Your task to perform on an android device: Open the calendar and show me this week's events? Image 0: 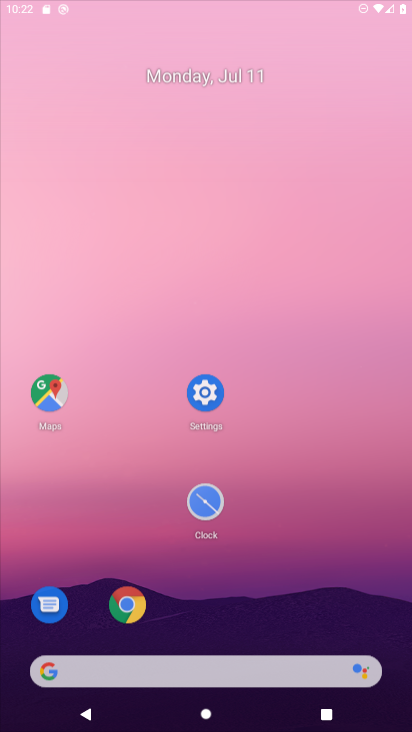
Step 0: press home button
Your task to perform on an android device: Open the calendar and show me this week's events? Image 1: 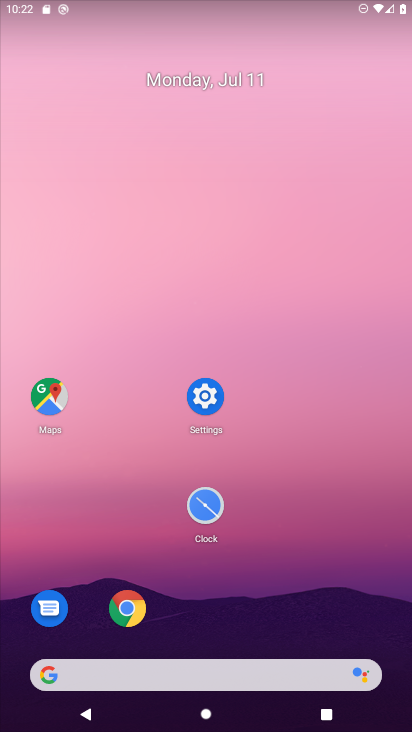
Step 1: drag from (384, 679) to (350, 145)
Your task to perform on an android device: Open the calendar and show me this week's events? Image 2: 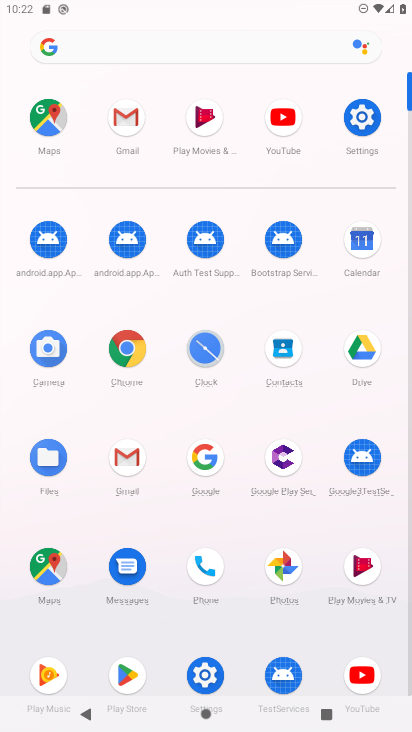
Step 2: click (352, 113)
Your task to perform on an android device: Open the calendar and show me this week's events? Image 3: 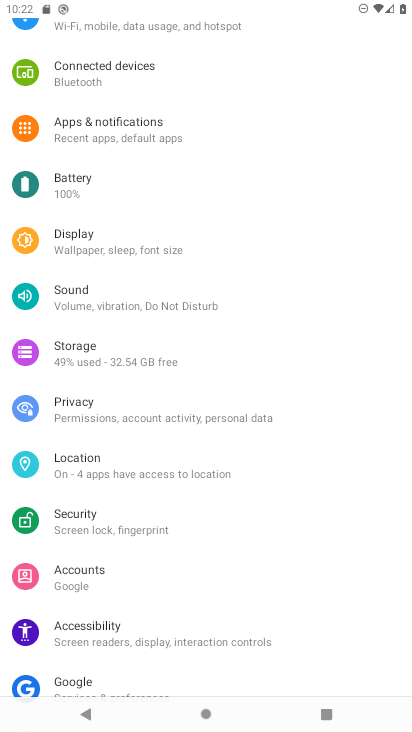
Step 3: press home button
Your task to perform on an android device: Open the calendar and show me this week's events? Image 4: 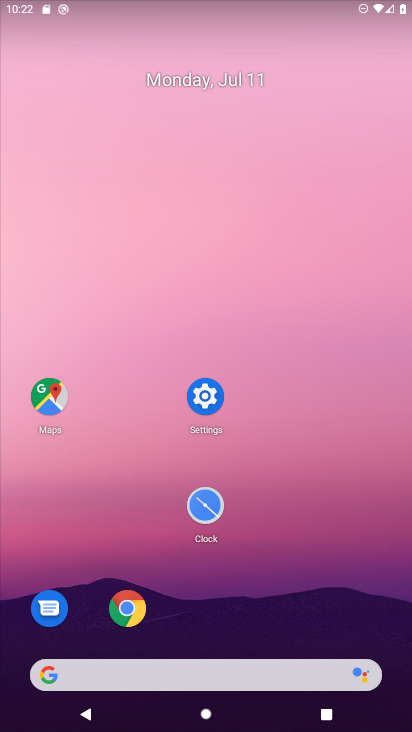
Step 4: drag from (397, 676) to (407, 55)
Your task to perform on an android device: Open the calendar and show me this week's events? Image 5: 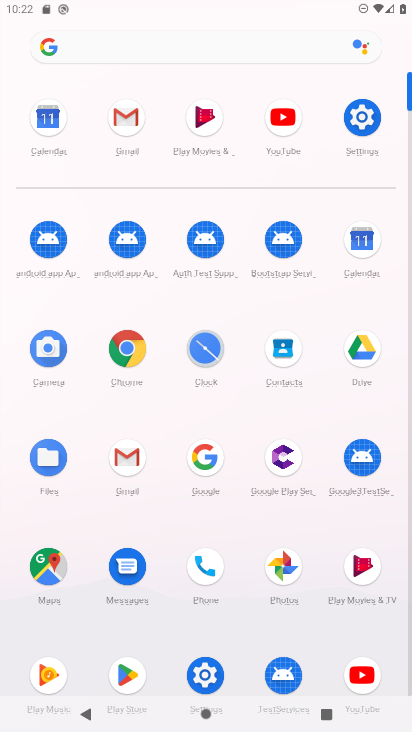
Step 5: click (364, 240)
Your task to perform on an android device: Open the calendar and show me this week's events? Image 6: 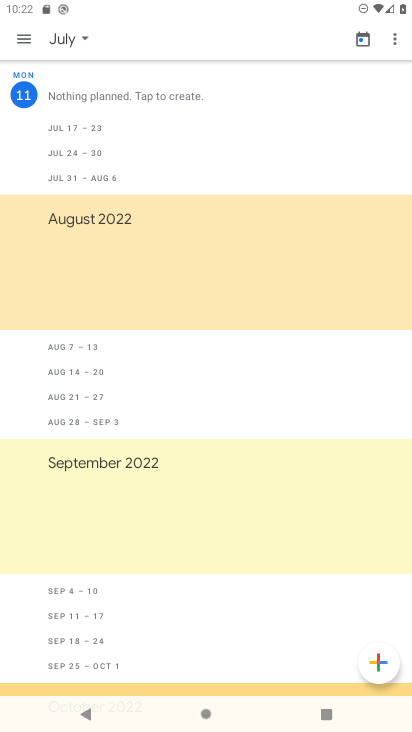
Step 6: click (20, 43)
Your task to perform on an android device: Open the calendar and show me this week's events? Image 7: 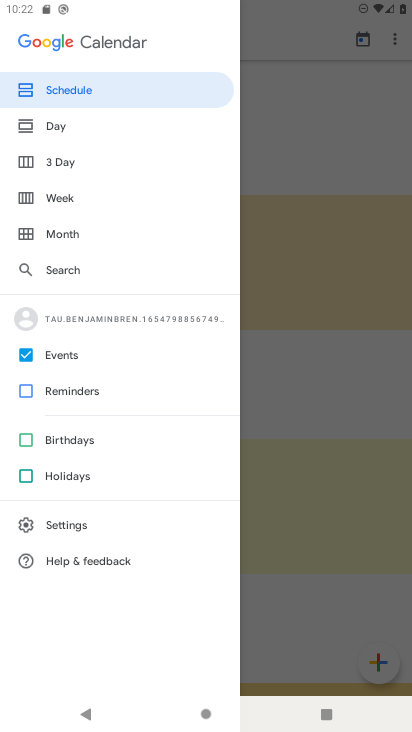
Step 7: click (57, 193)
Your task to perform on an android device: Open the calendar and show me this week's events? Image 8: 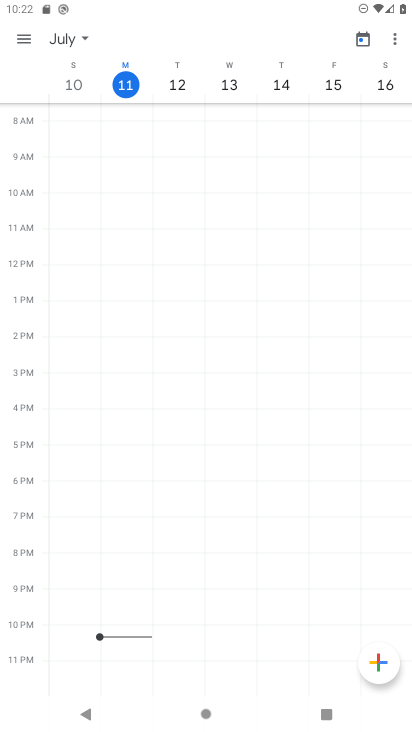
Step 8: task complete